Your task to perform on an android device: change keyboard looks Image 0: 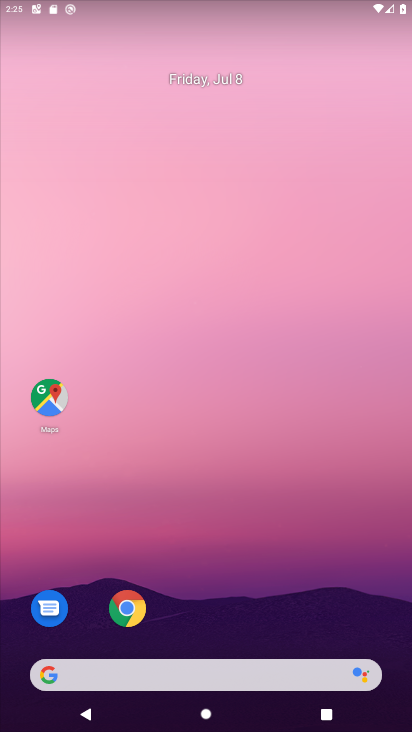
Step 0: drag from (248, 631) to (241, 295)
Your task to perform on an android device: change keyboard looks Image 1: 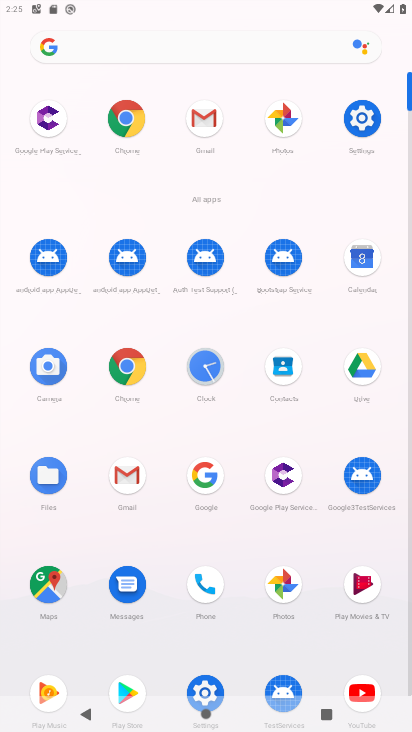
Step 1: click (363, 121)
Your task to perform on an android device: change keyboard looks Image 2: 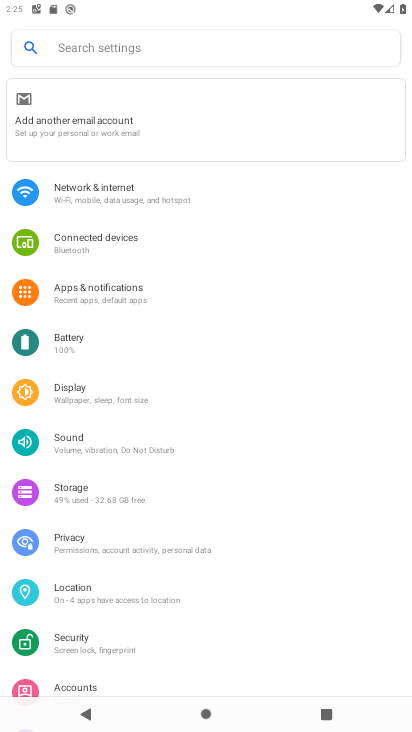
Step 2: drag from (142, 627) to (200, 270)
Your task to perform on an android device: change keyboard looks Image 3: 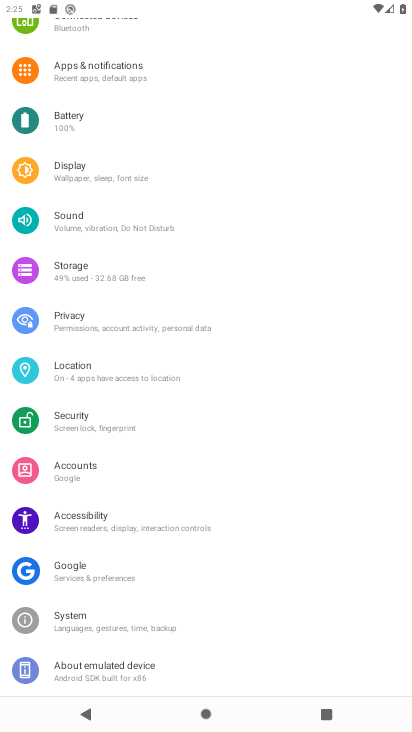
Step 3: click (108, 621)
Your task to perform on an android device: change keyboard looks Image 4: 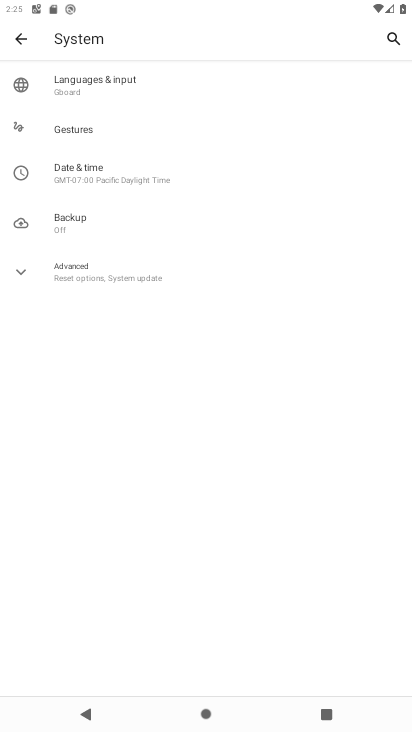
Step 4: click (101, 95)
Your task to perform on an android device: change keyboard looks Image 5: 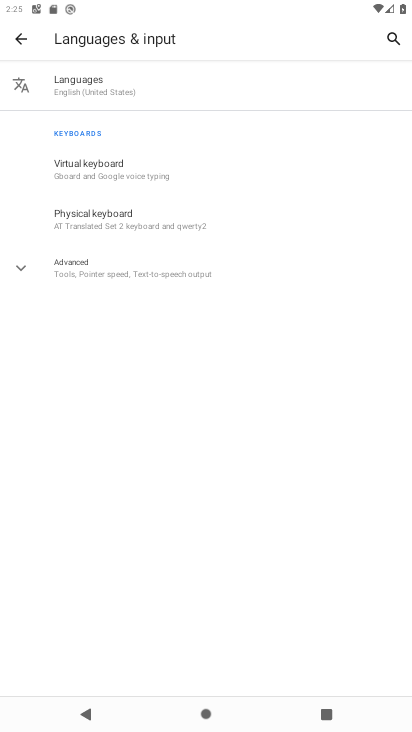
Step 5: click (95, 170)
Your task to perform on an android device: change keyboard looks Image 6: 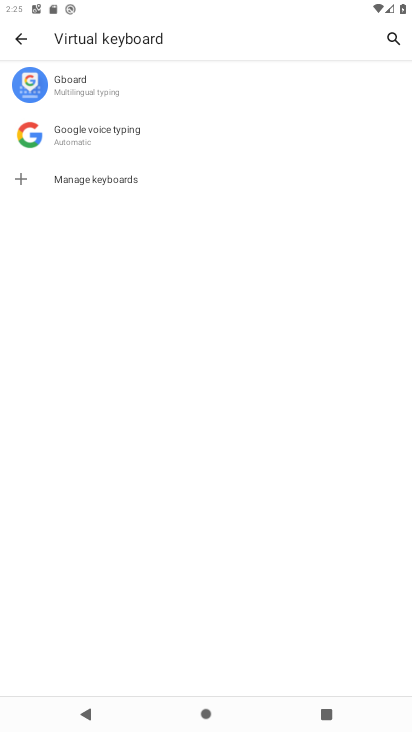
Step 6: click (99, 86)
Your task to perform on an android device: change keyboard looks Image 7: 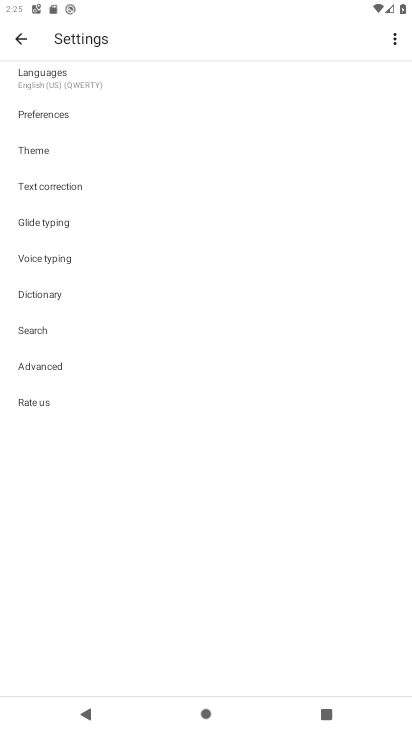
Step 7: click (66, 145)
Your task to perform on an android device: change keyboard looks Image 8: 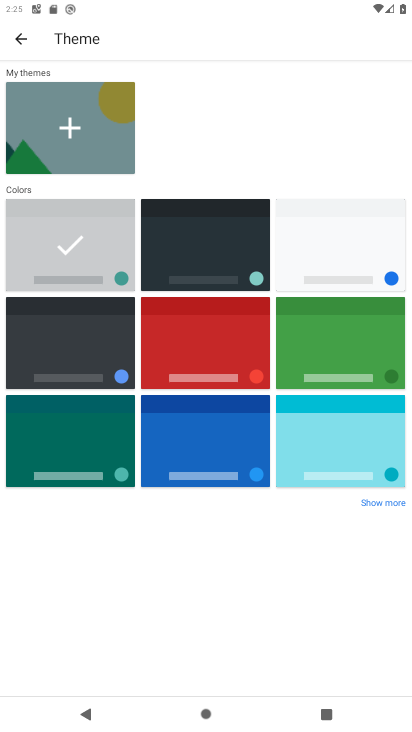
Step 8: click (66, 145)
Your task to perform on an android device: change keyboard looks Image 9: 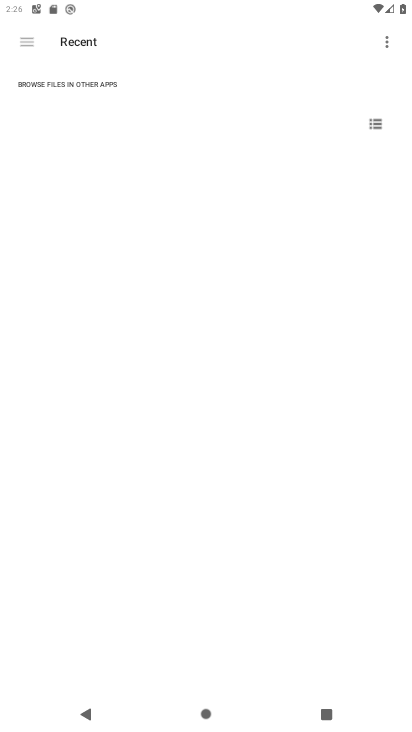
Step 9: press back button
Your task to perform on an android device: change keyboard looks Image 10: 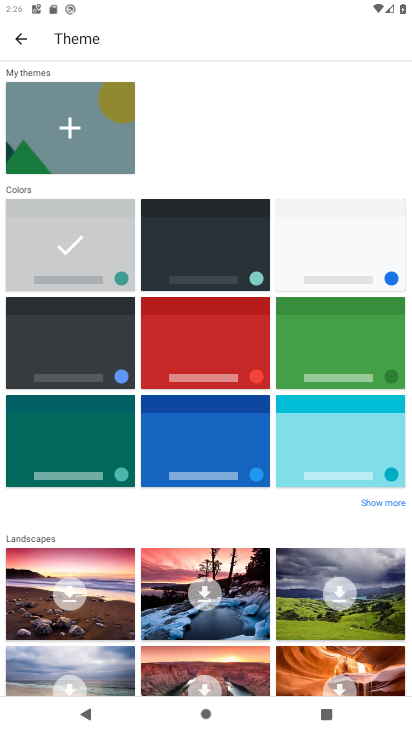
Step 10: click (84, 450)
Your task to perform on an android device: change keyboard looks Image 11: 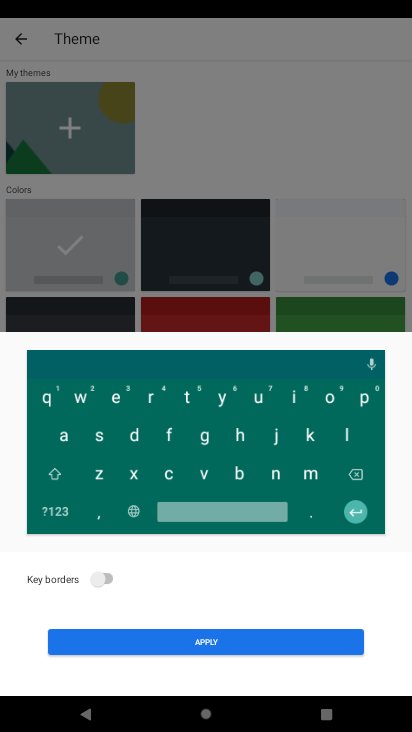
Step 11: click (216, 640)
Your task to perform on an android device: change keyboard looks Image 12: 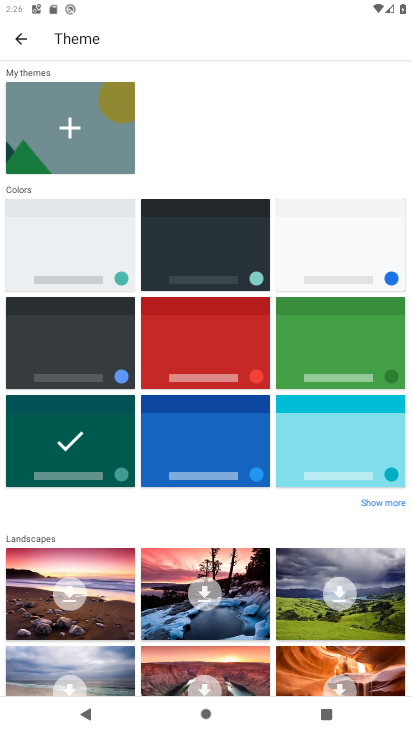
Step 12: task complete